Your task to perform on an android device: turn off javascript in the chrome app Image 0: 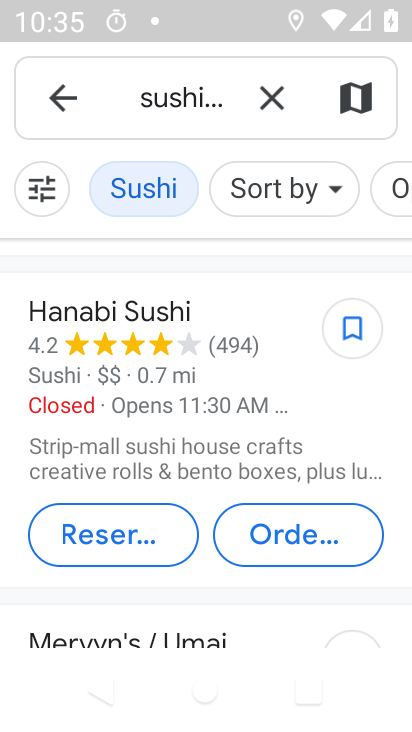
Step 0: press home button
Your task to perform on an android device: turn off javascript in the chrome app Image 1: 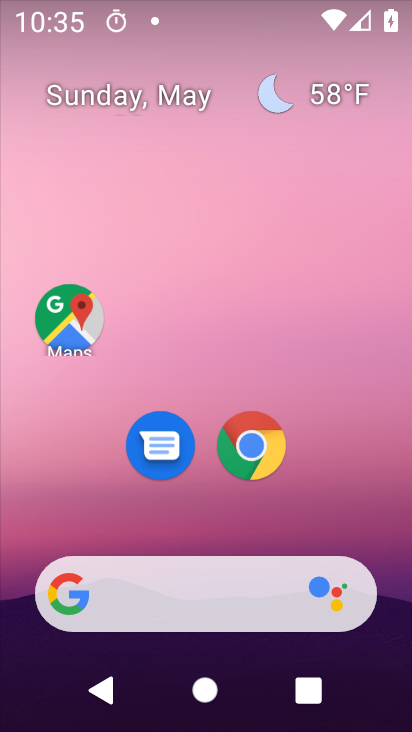
Step 1: drag from (331, 507) to (276, 27)
Your task to perform on an android device: turn off javascript in the chrome app Image 2: 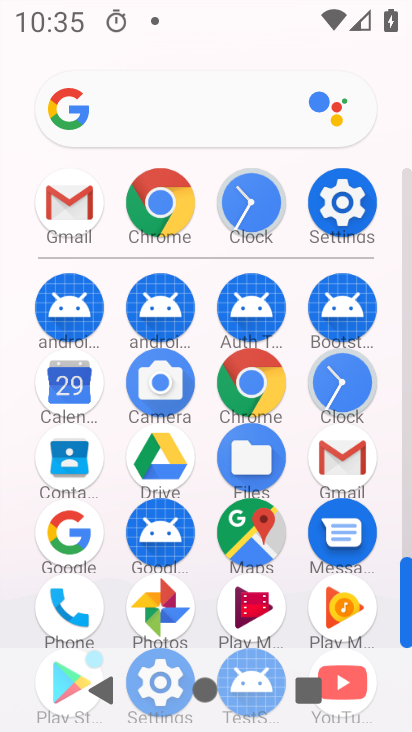
Step 2: drag from (27, 456) to (34, 183)
Your task to perform on an android device: turn off javascript in the chrome app Image 3: 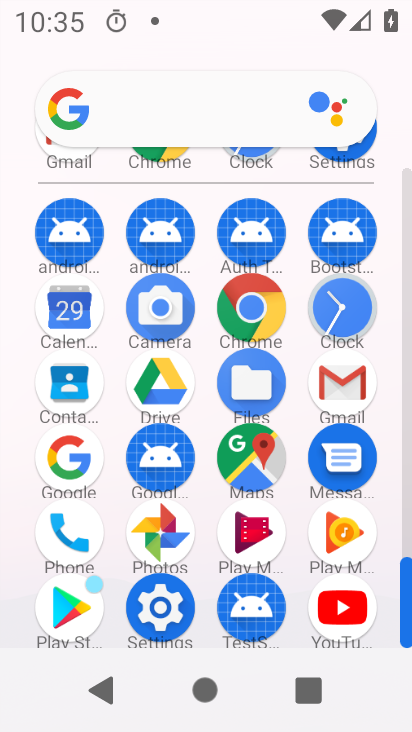
Step 3: click (252, 308)
Your task to perform on an android device: turn off javascript in the chrome app Image 4: 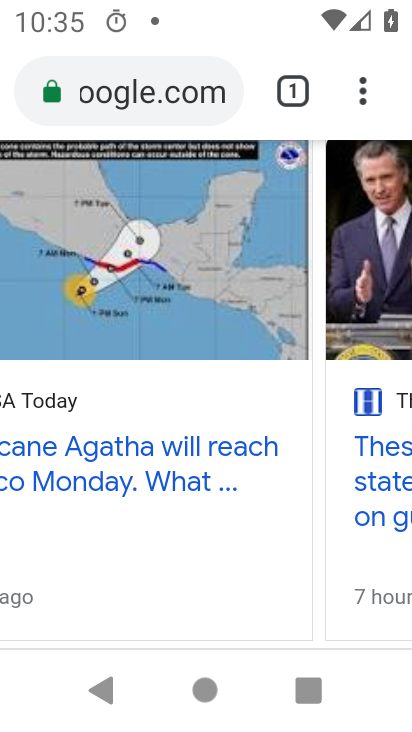
Step 4: drag from (359, 96) to (162, 461)
Your task to perform on an android device: turn off javascript in the chrome app Image 5: 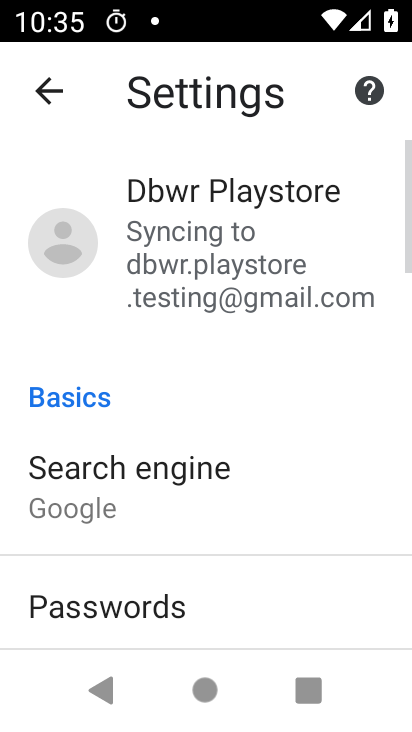
Step 5: drag from (239, 562) to (225, 267)
Your task to perform on an android device: turn off javascript in the chrome app Image 6: 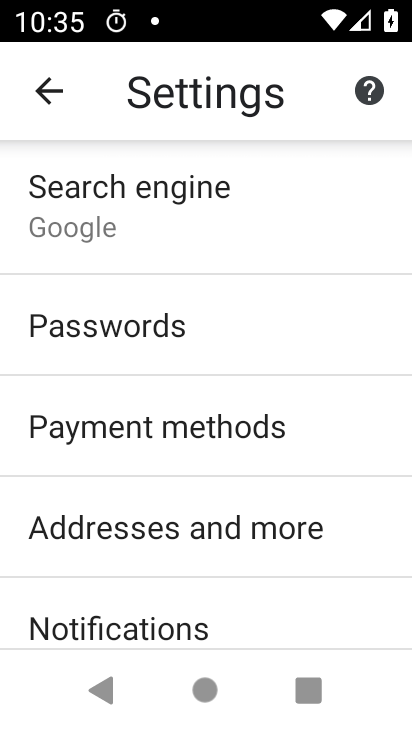
Step 6: drag from (296, 518) to (281, 182)
Your task to perform on an android device: turn off javascript in the chrome app Image 7: 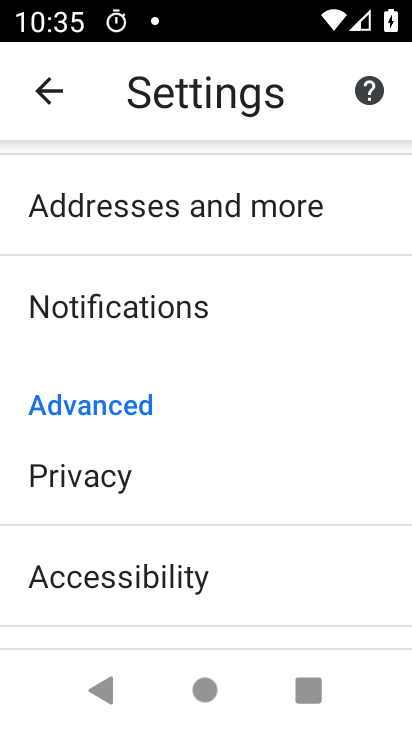
Step 7: drag from (280, 559) to (273, 190)
Your task to perform on an android device: turn off javascript in the chrome app Image 8: 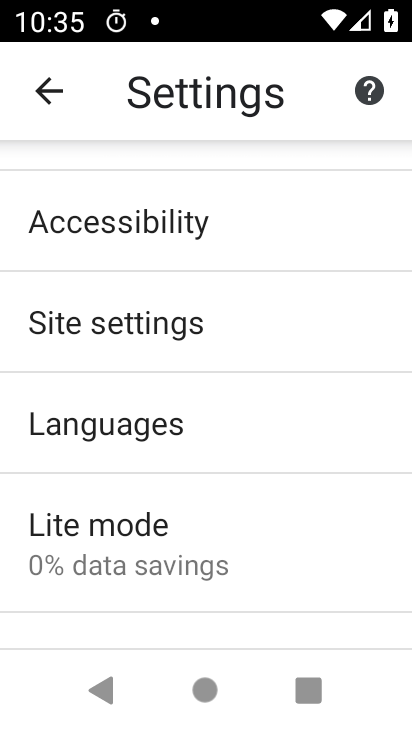
Step 8: drag from (219, 570) to (225, 208)
Your task to perform on an android device: turn off javascript in the chrome app Image 9: 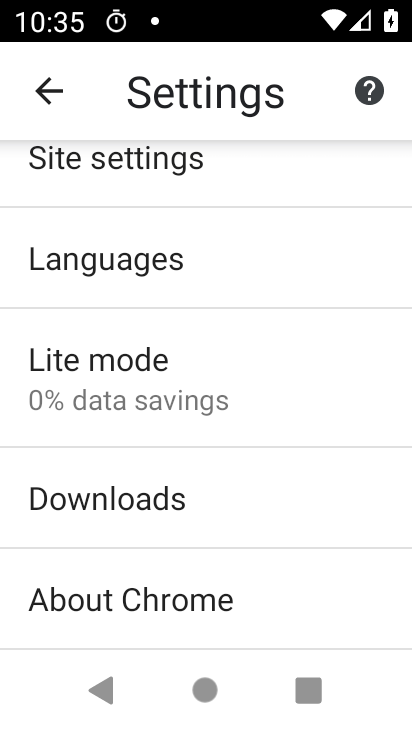
Step 9: drag from (227, 561) to (272, 226)
Your task to perform on an android device: turn off javascript in the chrome app Image 10: 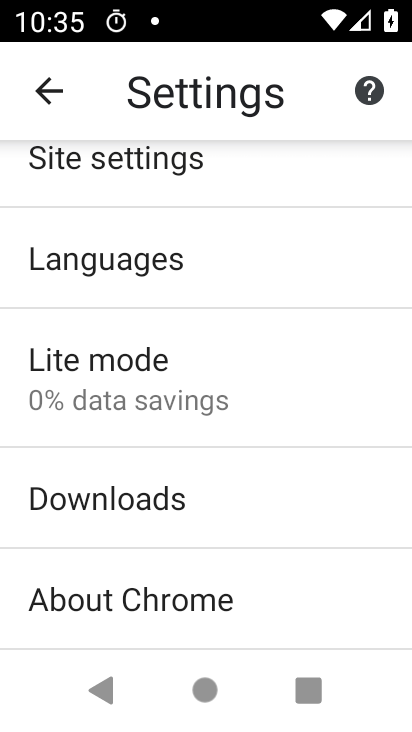
Step 10: drag from (278, 232) to (265, 471)
Your task to perform on an android device: turn off javascript in the chrome app Image 11: 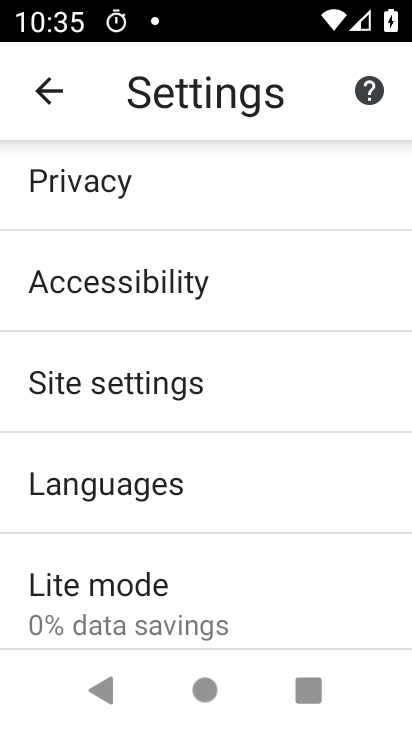
Step 11: click (241, 354)
Your task to perform on an android device: turn off javascript in the chrome app Image 12: 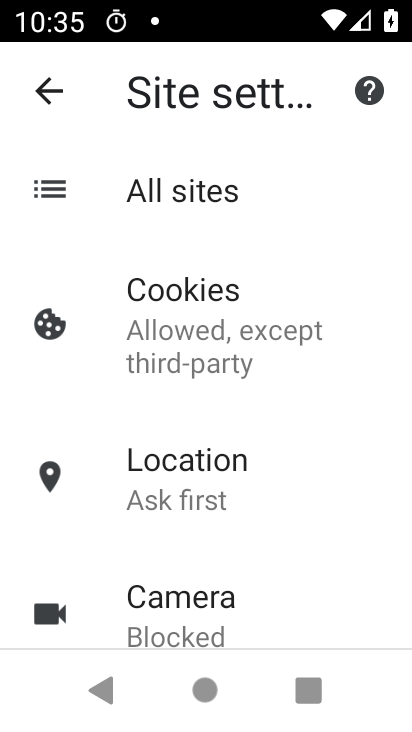
Step 12: drag from (279, 611) to (279, 209)
Your task to perform on an android device: turn off javascript in the chrome app Image 13: 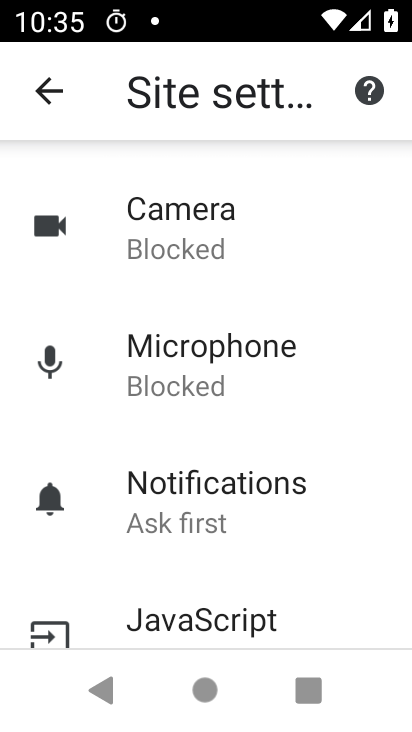
Step 13: drag from (280, 586) to (248, 243)
Your task to perform on an android device: turn off javascript in the chrome app Image 14: 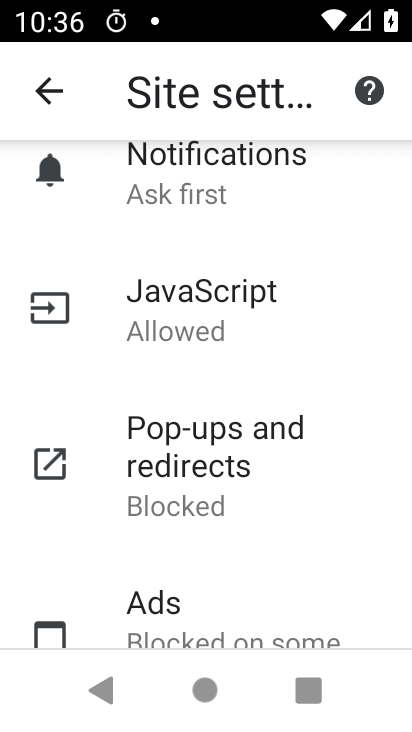
Step 14: click (243, 297)
Your task to perform on an android device: turn off javascript in the chrome app Image 15: 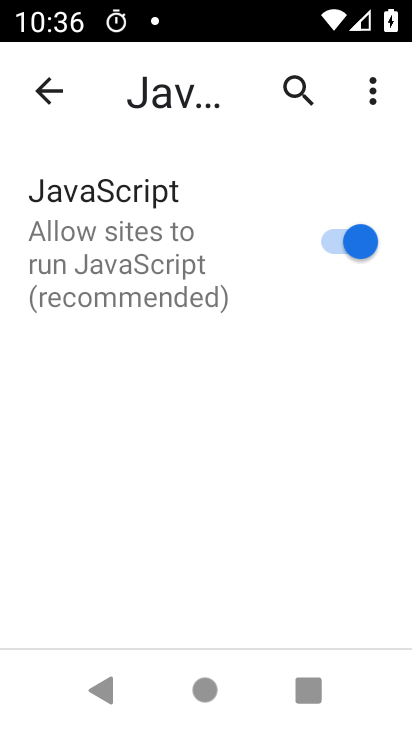
Step 15: click (355, 234)
Your task to perform on an android device: turn off javascript in the chrome app Image 16: 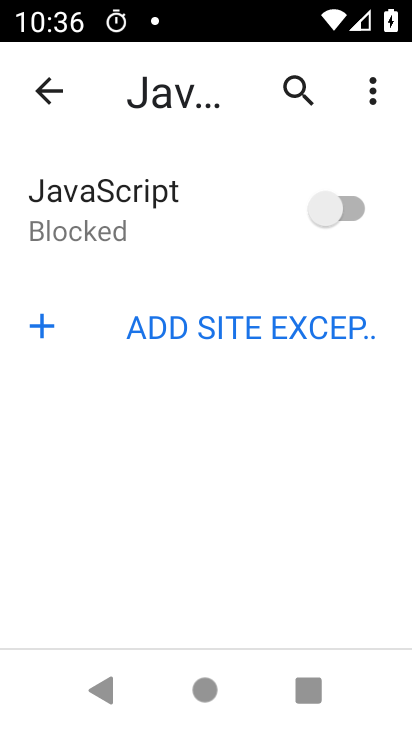
Step 16: task complete